Your task to perform on an android device: Go to location settings Image 0: 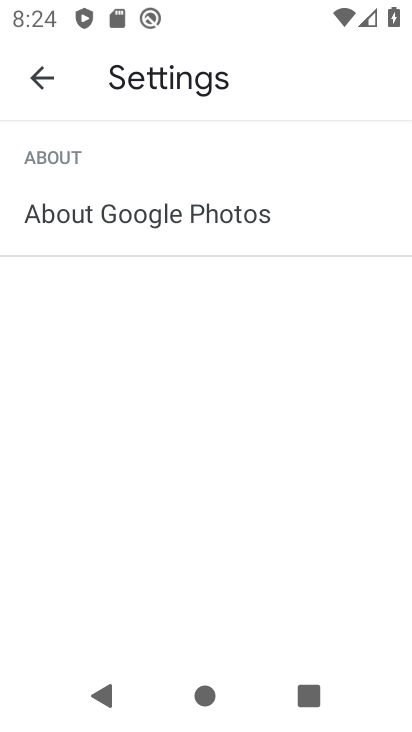
Step 0: press back button
Your task to perform on an android device: Go to location settings Image 1: 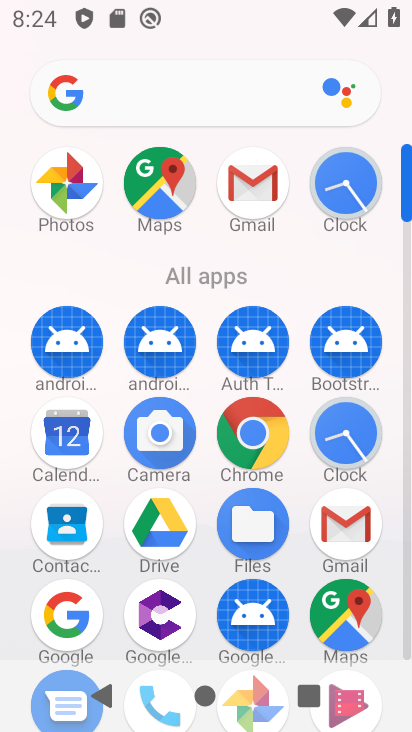
Step 1: drag from (215, 614) to (306, 115)
Your task to perform on an android device: Go to location settings Image 2: 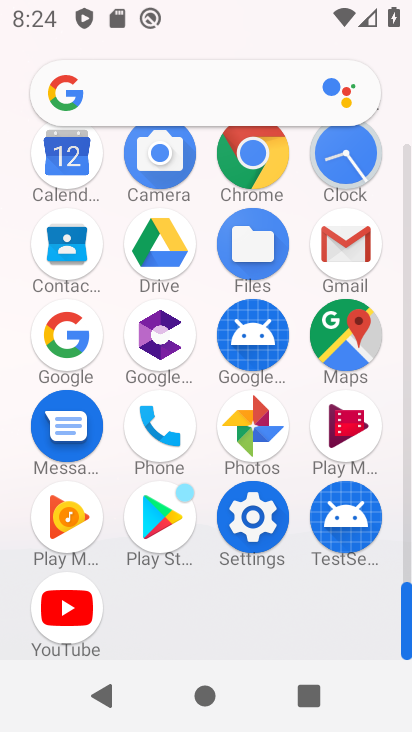
Step 2: click (256, 527)
Your task to perform on an android device: Go to location settings Image 3: 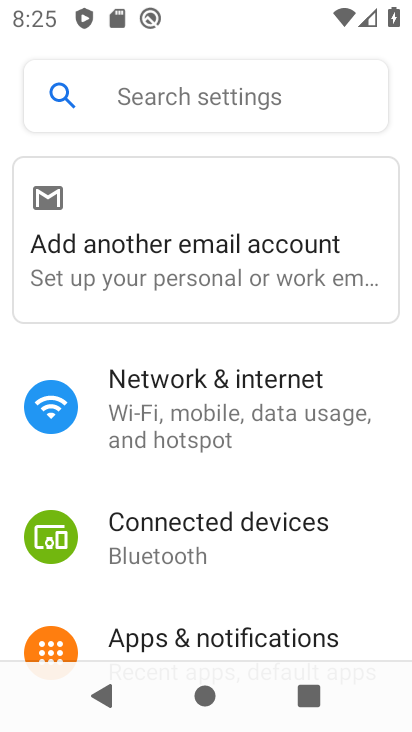
Step 3: drag from (212, 599) to (273, 139)
Your task to perform on an android device: Go to location settings Image 4: 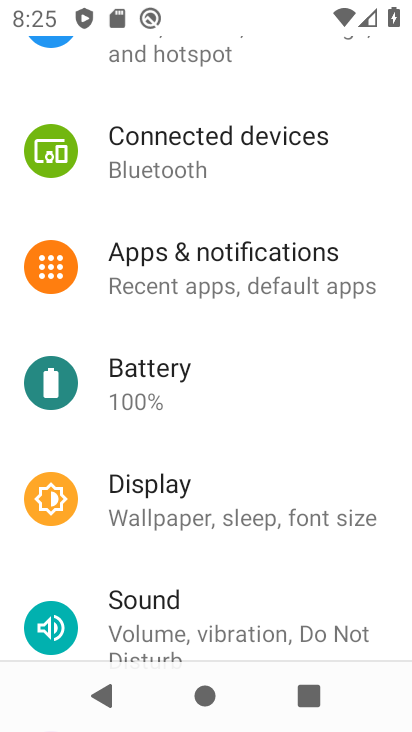
Step 4: drag from (223, 567) to (266, 81)
Your task to perform on an android device: Go to location settings Image 5: 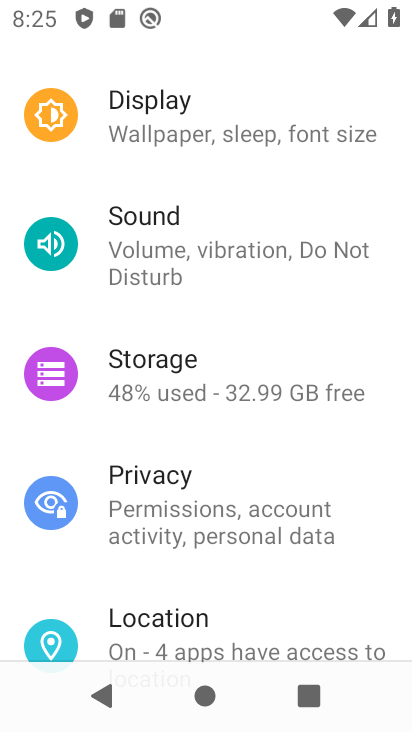
Step 5: click (173, 606)
Your task to perform on an android device: Go to location settings Image 6: 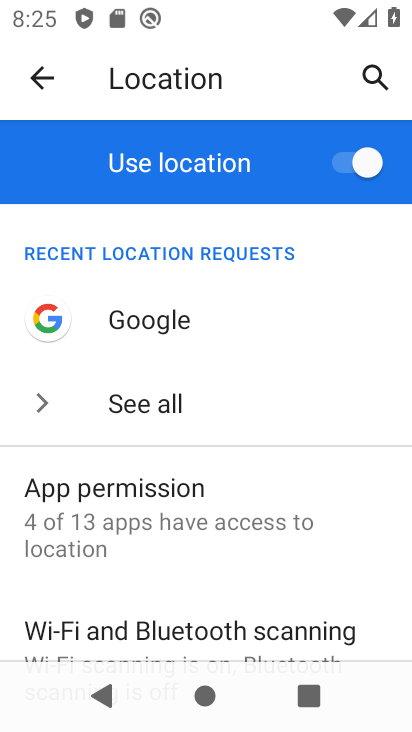
Step 6: drag from (122, 570) to (214, 169)
Your task to perform on an android device: Go to location settings Image 7: 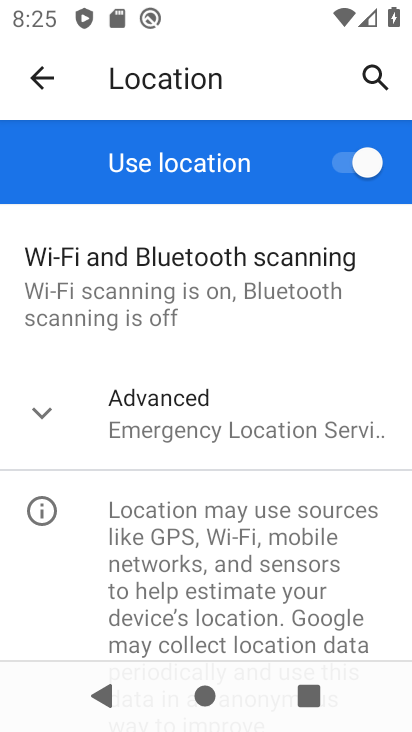
Step 7: click (168, 426)
Your task to perform on an android device: Go to location settings Image 8: 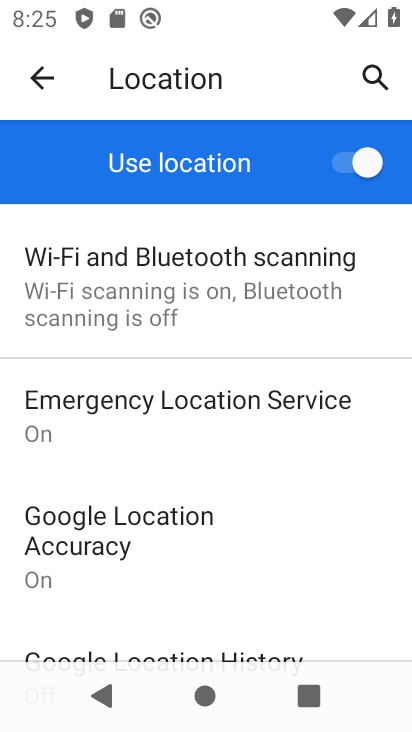
Step 8: task complete